Your task to perform on an android device: all mails in gmail Image 0: 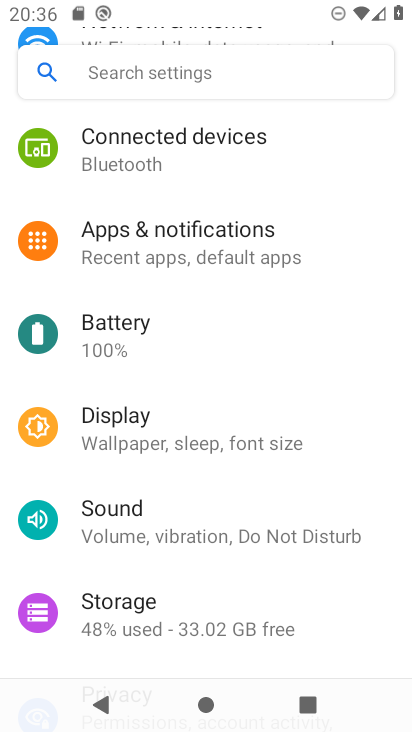
Step 0: press home button
Your task to perform on an android device: all mails in gmail Image 1: 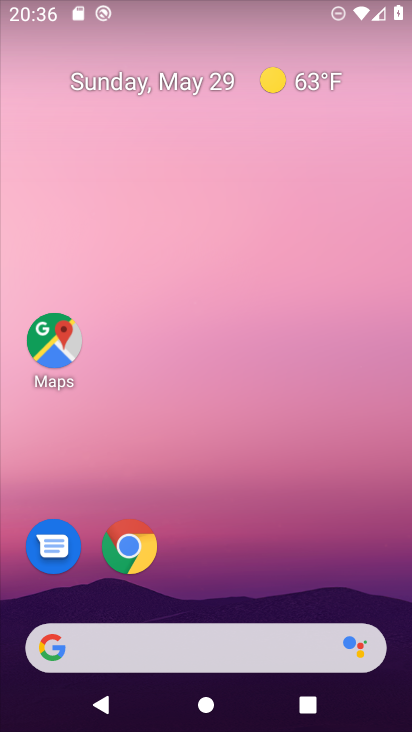
Step 1: drag from (158, 648) to (326, 97)
Your task to perform on an android device: all mails in gmail Image 2: 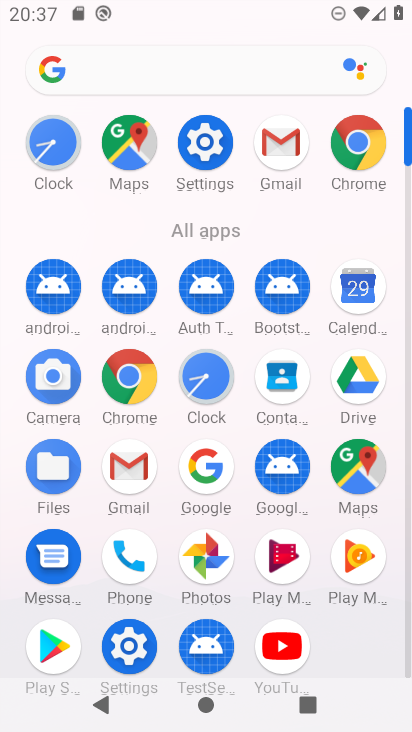
Step 2: click (280, 153)
Your task to perform on an android device: all mails in gmail Image 3: 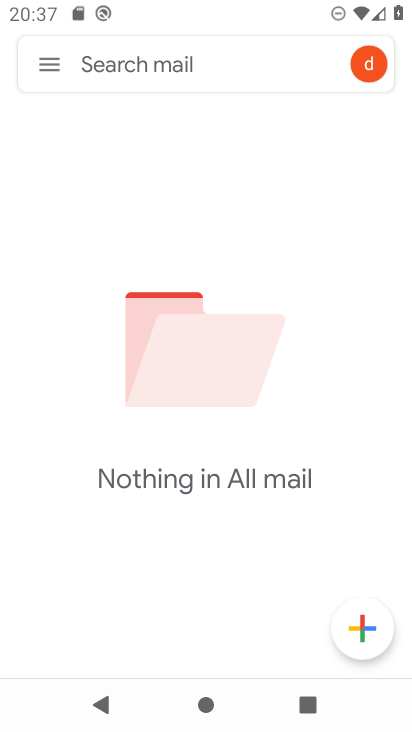
Step 3: task complete